Your task to perform on an android device: Check the news Image 0: 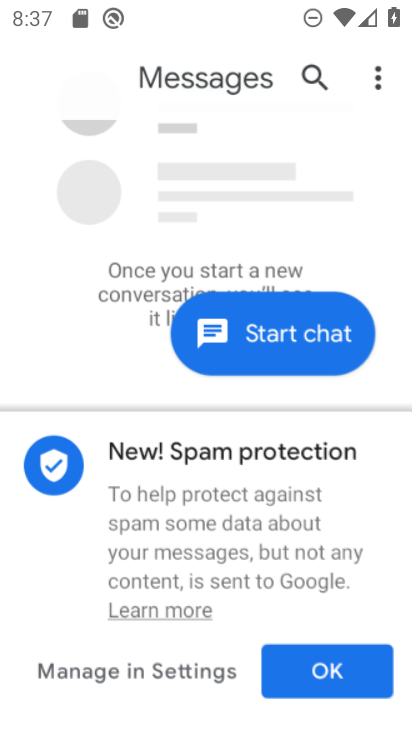
Step 0: drag from (360, 577) to (350, 55)
Your task to perform on an android device: Check the news Image 1: 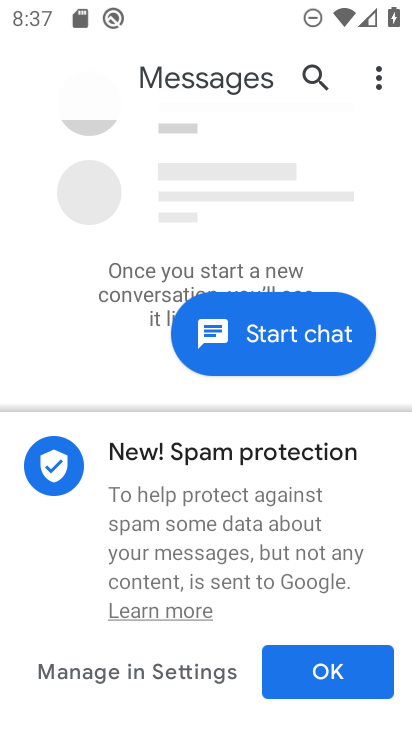
Step 1: task complete